Your task to perform on an android device: Add "bose quietcomfort 35" to the cart on walmart, then select checkout. Image 0: 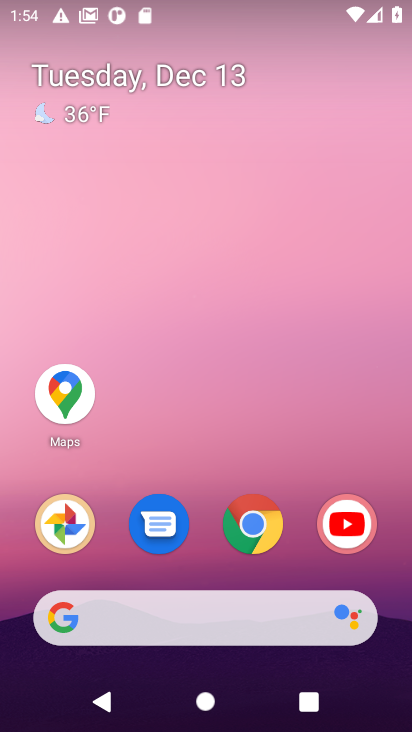
Step 0: click (252, 528)
Your task to perform on an android device: Add "bose quietcomfort 35" to the cart on walmart, then select checkout. Image 1: 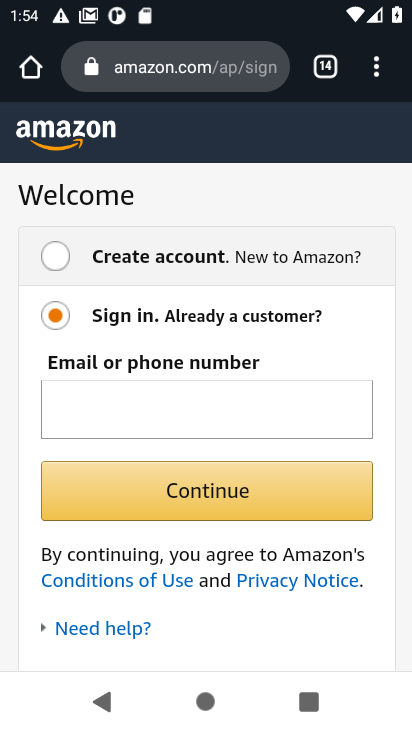
Step 1: click (187, 70)
Your task to perform on an android device: Add "bose quietcomfort 35" to the cart on walmart, then select checkout. Image 2: 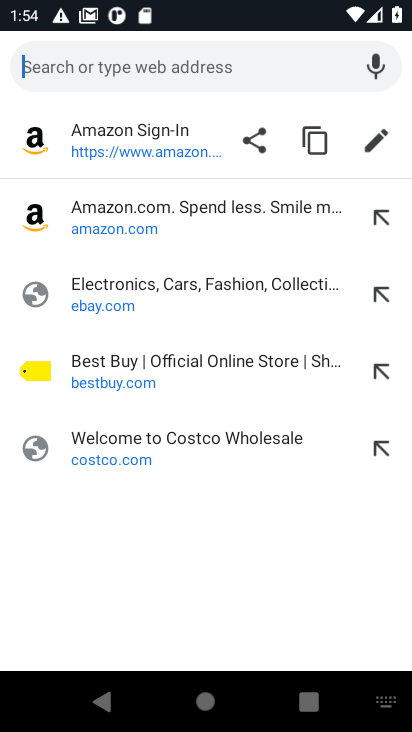
Step 2: type "walmart.com"
Your task to perform on an android device: Add "bose quietcomfort 35" to the cart on walmart, then select checkout. Image 3: 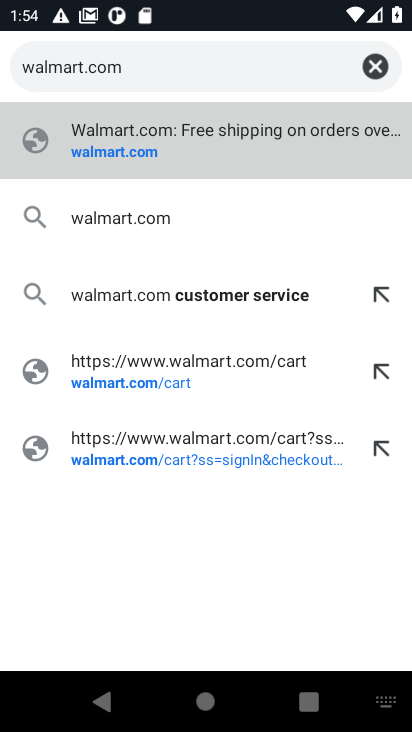
Step 3: click (140, 148)
Your task to perform on an android device: Add "bose quietcomfort 35" to the cart on walmart, then select checkout. Image 4: 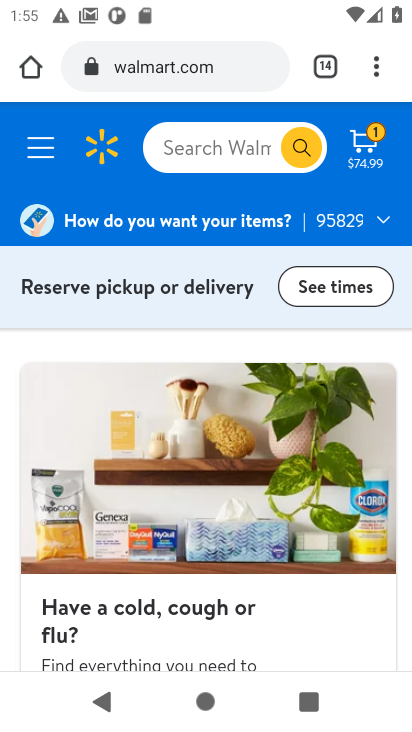
Step 4: click (204, 156)
Your task to perform on an android device: Add "bose quietcomfort 35" to the cart on walmart, then select checkout. Image 5: 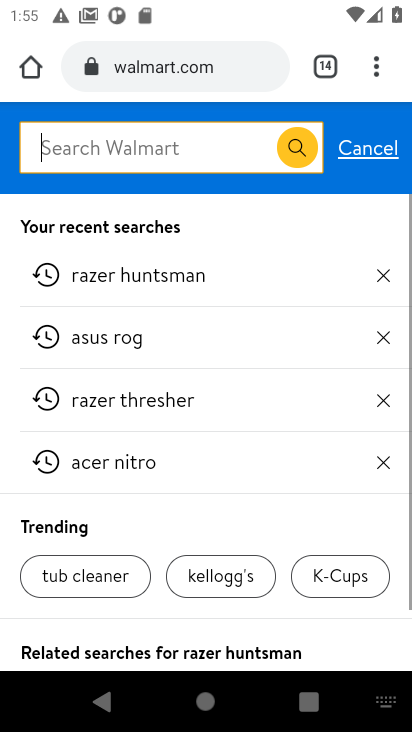
Step 5: type "bose quietcomfort 35"
Your task to perform on an android device: Add "bose quietcomfort 35" to the cart on walmart, then select checkout. Image 6: 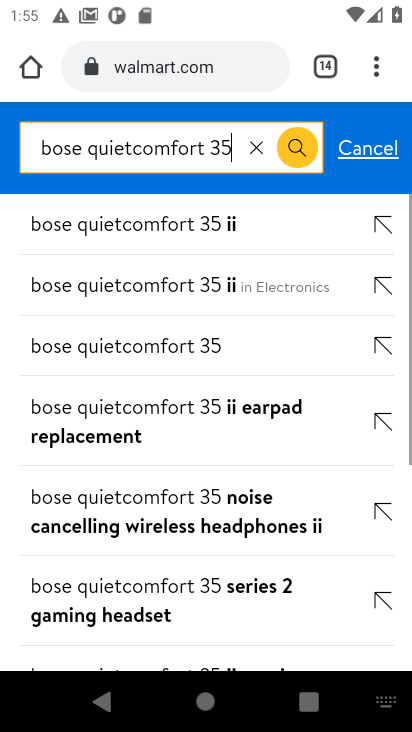
Step 6: click (149, 357)
Your task to perform on an android device: Add "bose quietcomfort 35" to the cart on walmart, then select checkout. Image 7: 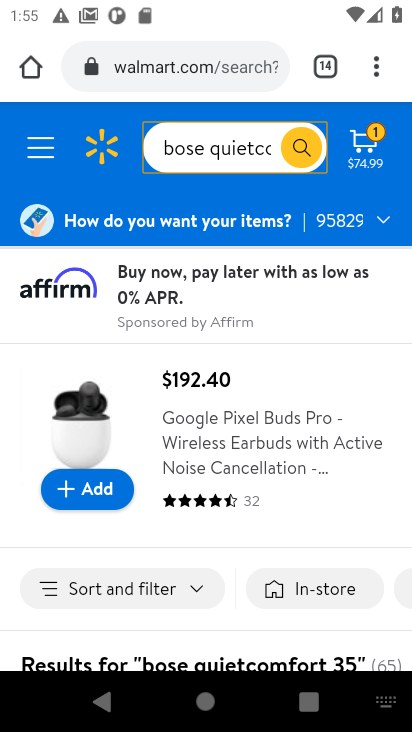
Step 7: drag from (222, 459) to (226, 234)
Your task to perform on an android device: Add "bose quietcomfort 35" to the cart on walmart, then select checkout. Image 8: 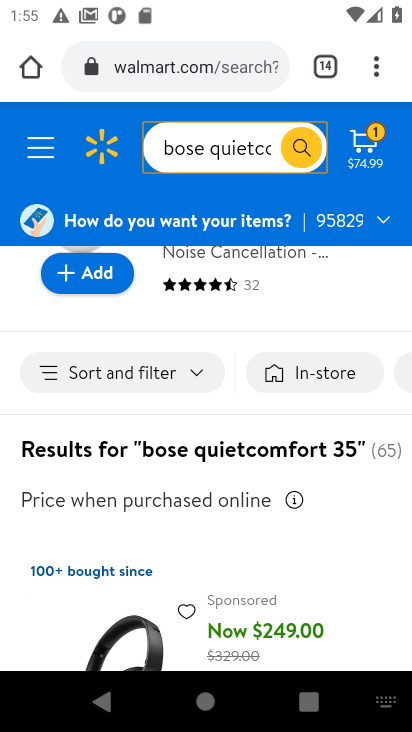
Step 8: drag from (203, 507) to (208, 272)
Your task to perform on an android device: Add "bose quietcomfort 35" to the cart on walmart, then select checkout. Image 9: 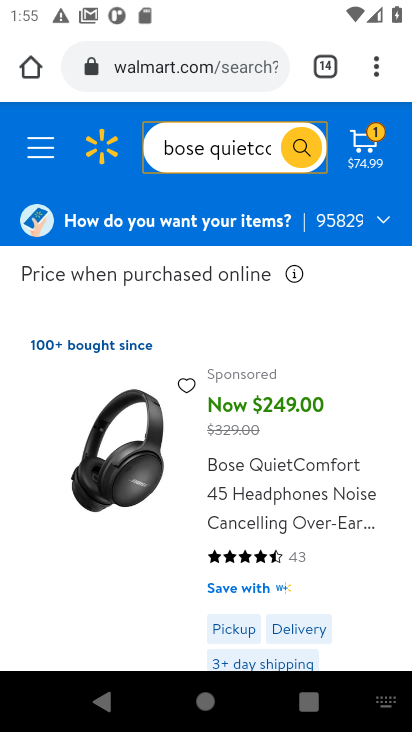
Step 9: drag from (182, 503) to (191, 225)
Your task to perform on an android device: Add "bose quietcomfort 35" to the cart on walmart, then select checkout. Image 10: 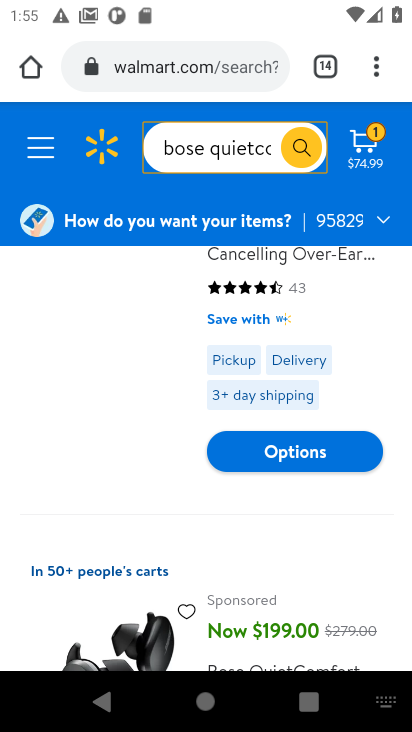
Step 10: drag from (196, 531) to (184, 245)
Your task to perform on an android device: Add "bose quietcomfort 35" to the cart on walmart, then select checkout. Image 11: 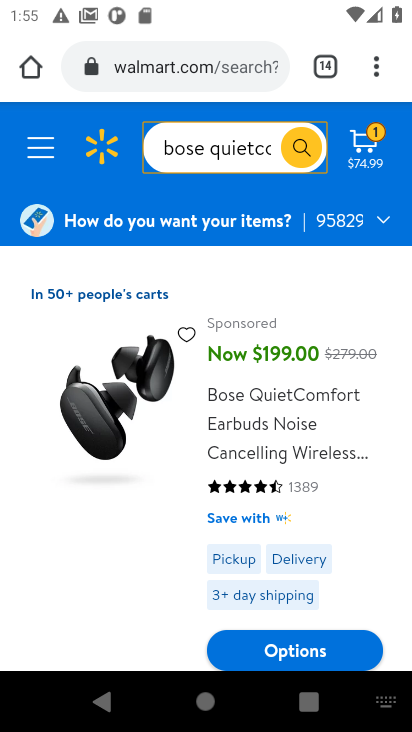
Step 11: drag from (161, 495) to (163, 244)
Your task to perform on an android device: Add "bose quietcomfort 35" to the cart on walmart, then select checkout. Image 12: 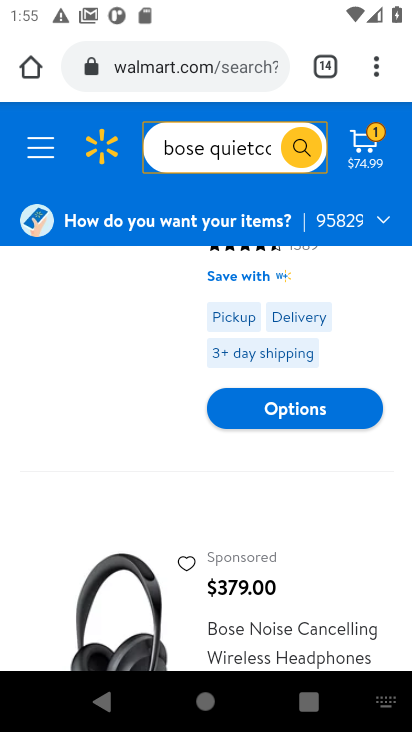
Step 12: drag from (157, 541) to (165, 294)
Your task to perform on an android device: Add "bose quietcomfort 35" to the cart on walmart, then select checkout. Image 13: 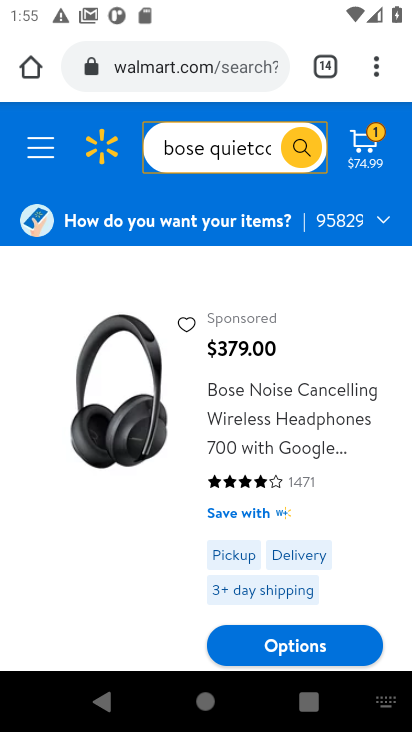
Step 13: drag from (164, 604) to (178, 273)
Your task to perform on an android device: Add "bose quietcomfort 35" to the cart on walmart, then select checkout. Image 14: 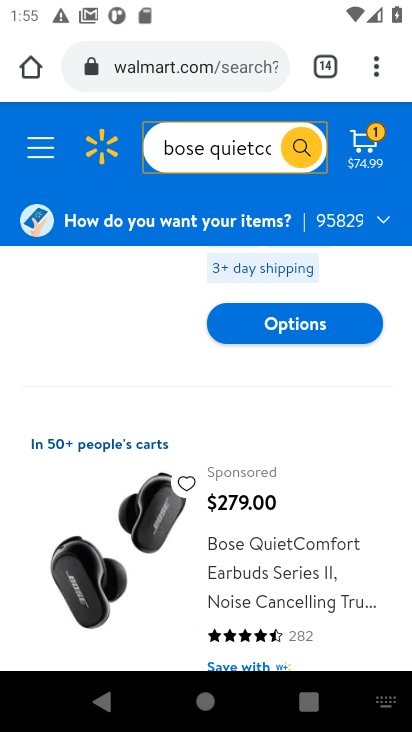
Step 14: drag from (179, 577) to (189, 268)
Your task to perform on an android device: Add "bose quietcomfort 35" to the cart on walmart, then select checkout. Image 15: 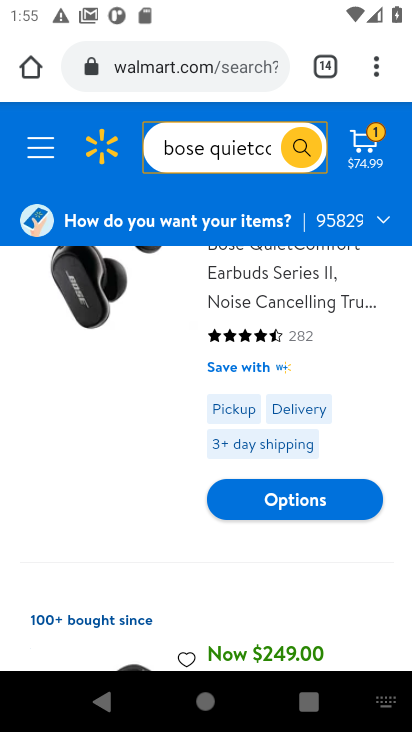
Step 15: drag from (184, 621) to (185, 326)
Your task to perform on an android device: Add "bose quietcomfort 35" to the cart on walmart, then select checkout. Image 16: 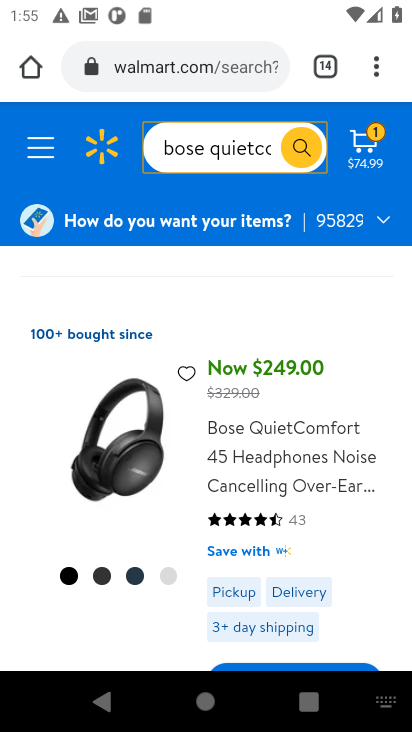
Step 16: drag from (170, 607) to (164, 339)
Your task to perform on an android device: Add "bose quietcomfort 35" to the cart on walmart, then select checkout. Image 17: 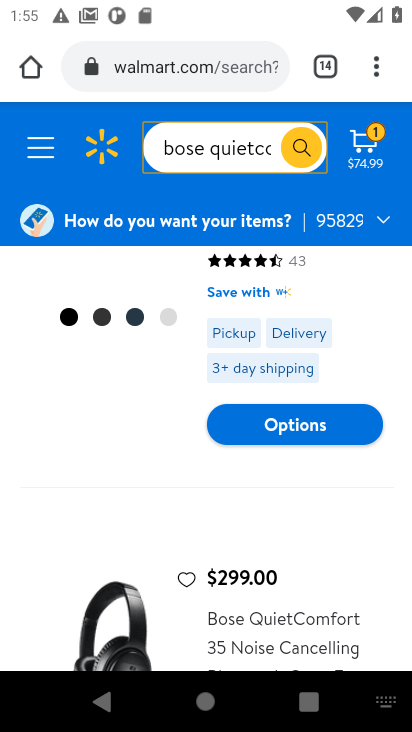
Step 17: drag from (160, 623) to (164, 375)
Your task to perform on an android device: Add "bose quietcomfort 35" to the cart on walmart, then select checkout. Image 18: 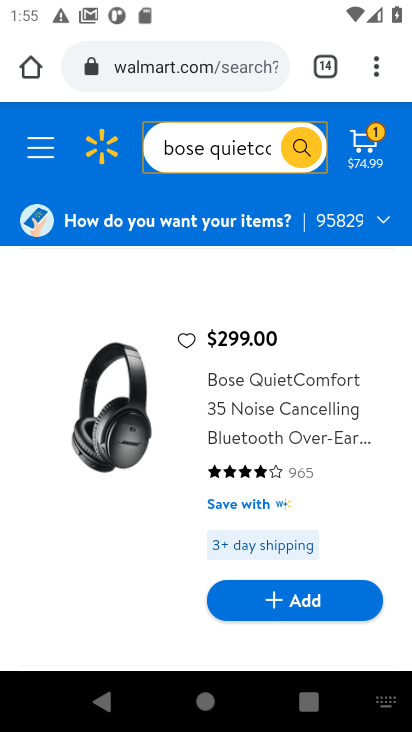
Step 18: click (285, 600)
Your task to perform on an android device: Add "bose quietcomfort 35" to the cart on walmart, then select checkout. Image 19: 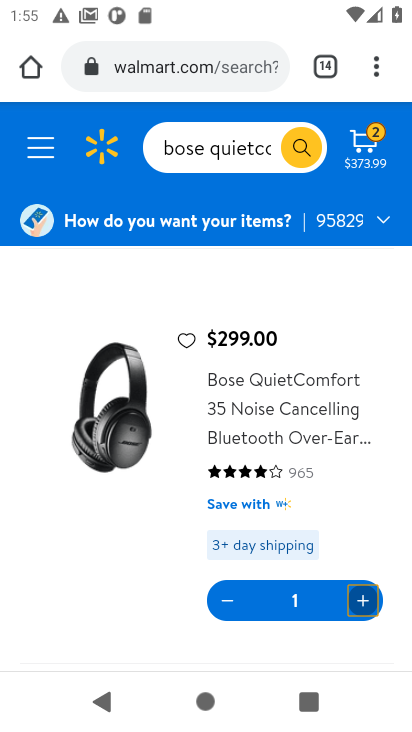
Step 19: click (363, 154)
Your task to perform on an android device: Add "bose quietcomfort 35" to the cart on walmart, then select checkout. Image 20: 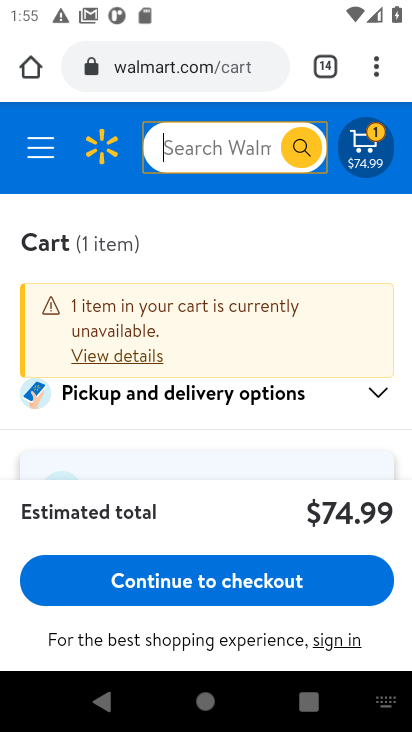
Step 20: click (161, 581)
Your task to perform on an android device: Add "bose quietcomfort 35" to the cart on walmart, then select checkout. Image 21: 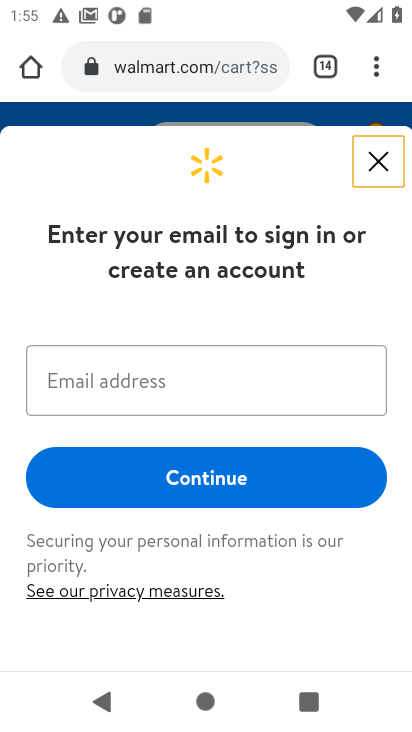
Step 21: task complete